Your task to perform on an android device: Is it going to rain today? Image 0: 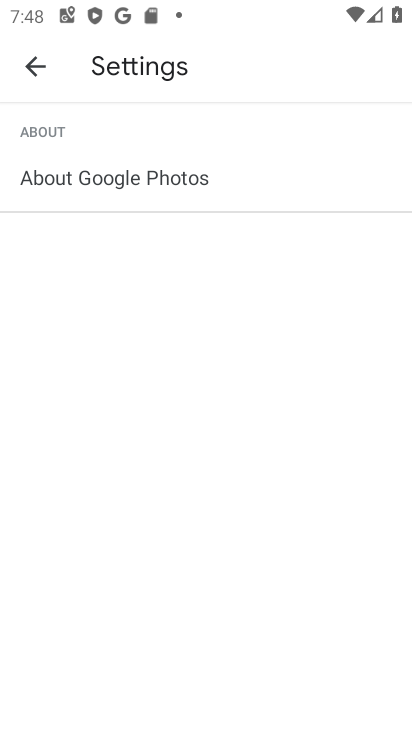
Step 0: press home button
Your task to perform on an android device: Is it going to rain today? Image 1: 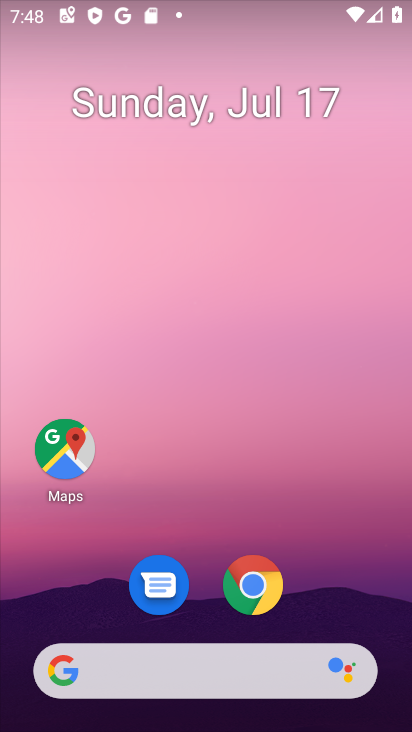
Step 1: click (256, 673)
Your task to perform on an android device: Is it going to rain today? Image 2: 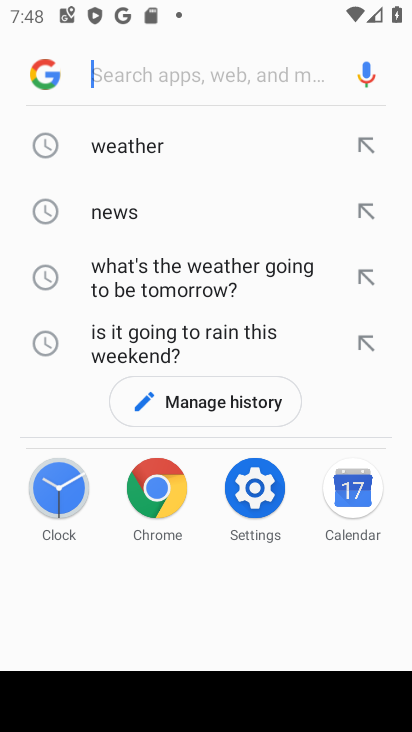
Step 2: click (123, 139)
Your task to perform on an android device: Is it going to rain today? Image 3: 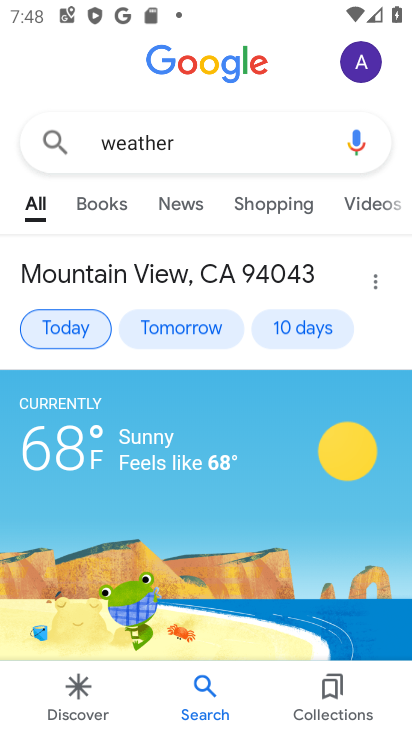
Step 3: click (75, 342)
Your task to perform on an android device: Is it going to rain today? Image 4: 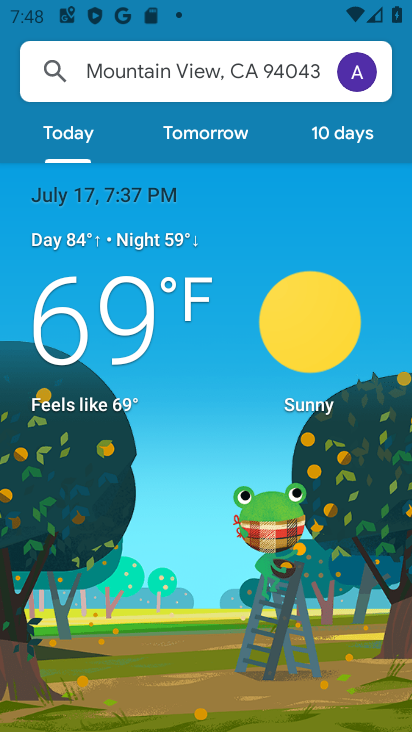
Step 4: task complete